Your task to perform on an android device: snooze an email in the gmail app Image 0: 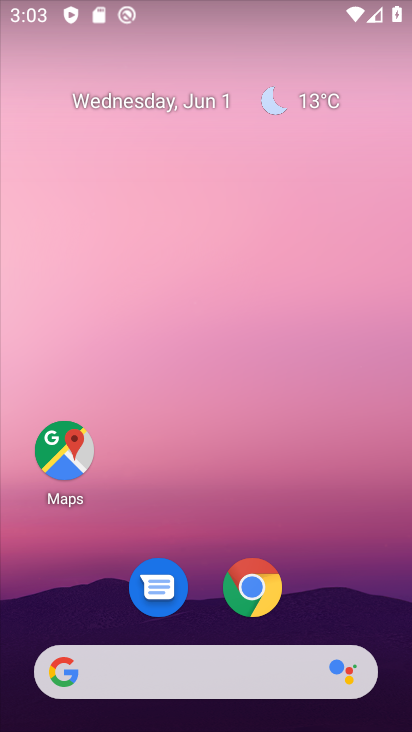
Step 0: drag from (311, 438) to (237, 12)
Your task to perform on an android device: snooze an email in the gmail app Image 1: 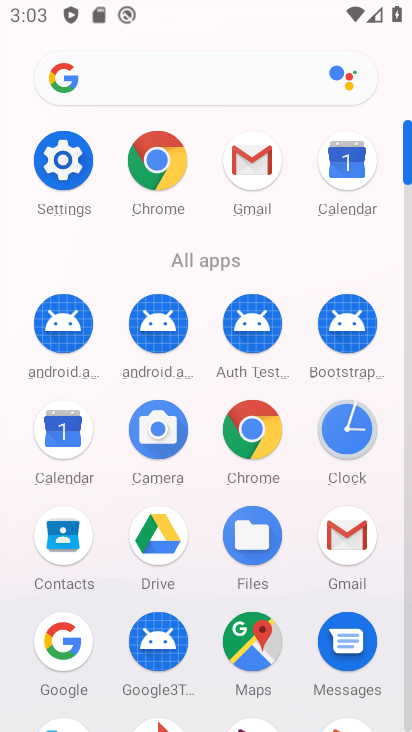
Step 1: drag from (0, 529) to (10, 184)
Your task to perform on an android device: snooze an email in the gmail app Image 2: 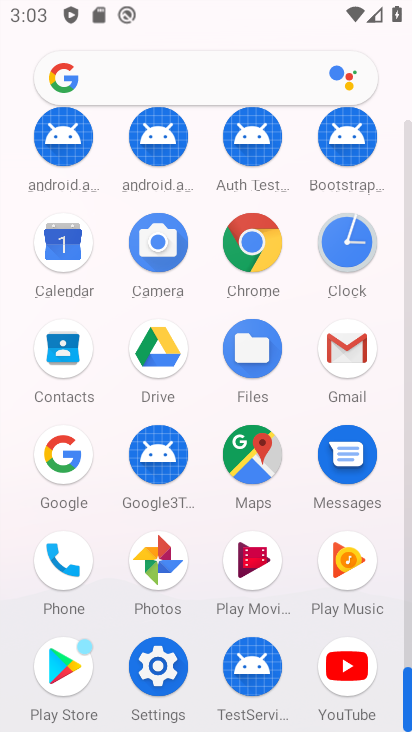
Step 2: click (349, 340)
Your task to perform on an android device: snooze an email in the gmail app Image 3: 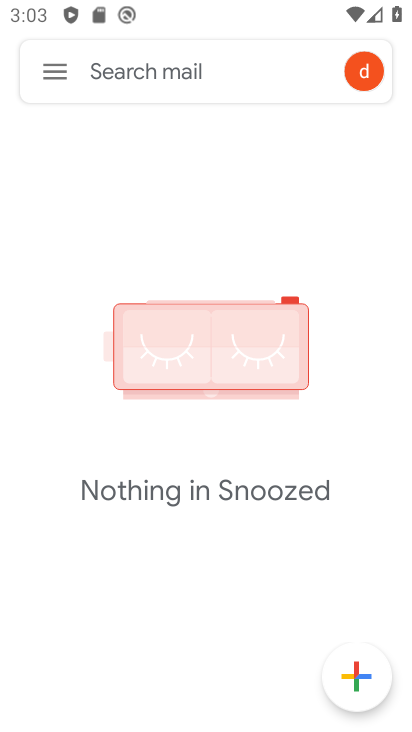
Step 3: click (61, 72)
Your task to perform on an android device: snooze an email in the gmail app Image 4: 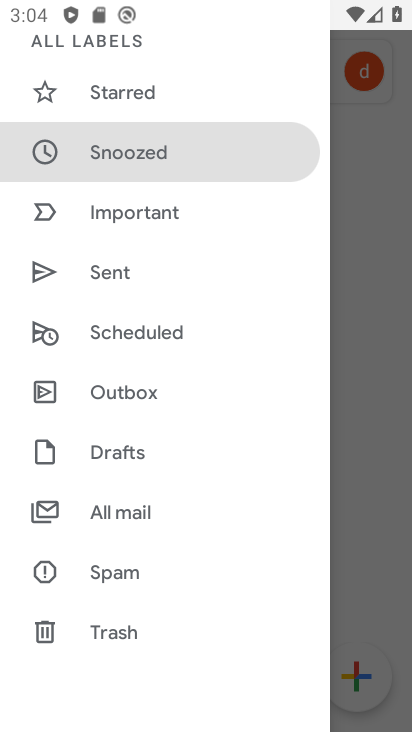
Step 4: drag from (189, 171) to (202, 508)
Your task to perform on an android device: snooze an email in the gmail app Image 5: 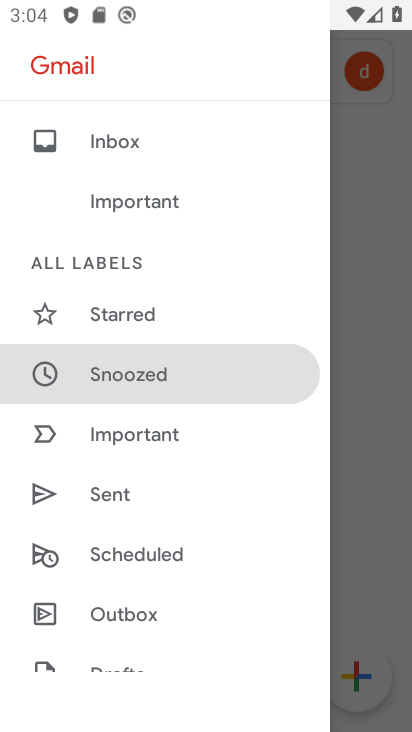
Step 5: click (166, 375)
Your task to perform on an android device: snooze an email in the gmail app Image 6: 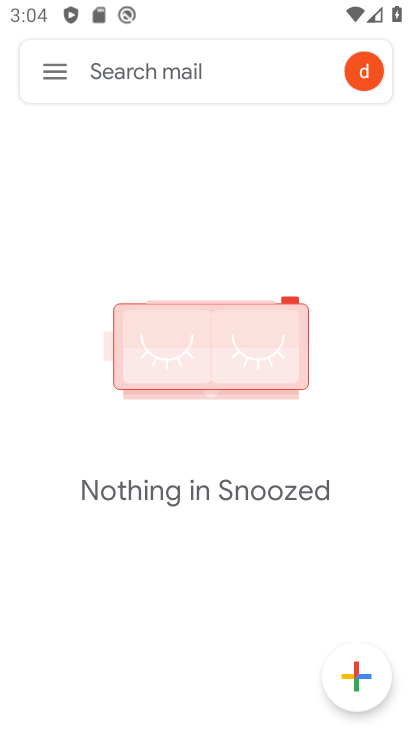
Step 6: task complete